Your task to perform on an android device: Open Yahoo.com Image 0: 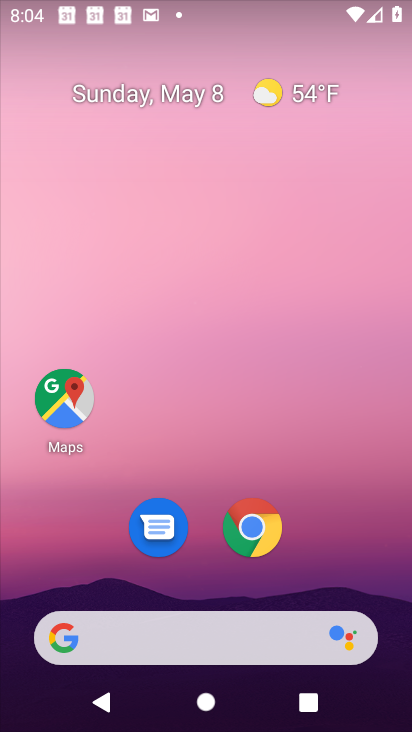
Step 0: click (255, 531)
Your task to perform on an android device: Open Yahoo.com Image 1: 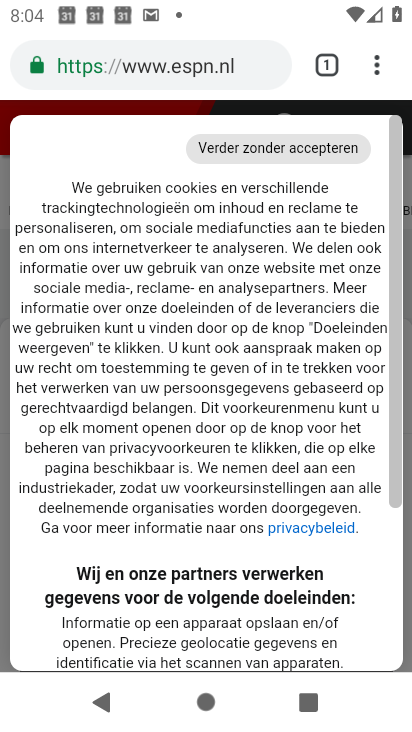
Step 1: click (200, 67)
Your task to perform on an android device: Open Yahoo.com Image 2: 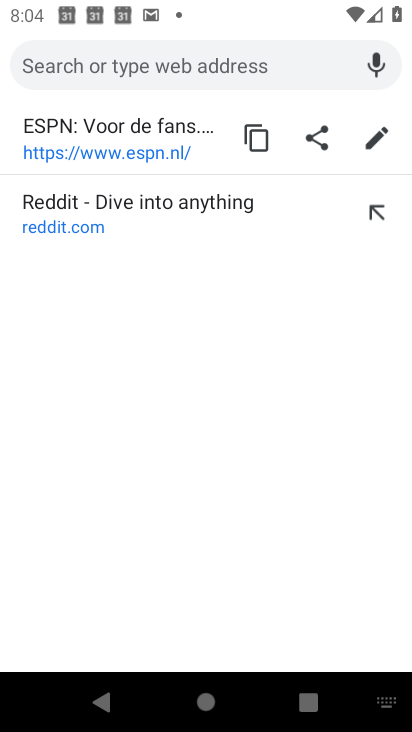
Step 2: type "yahoo.com"
Your task to perform on an android device: Open Yahoo.com Image 3: 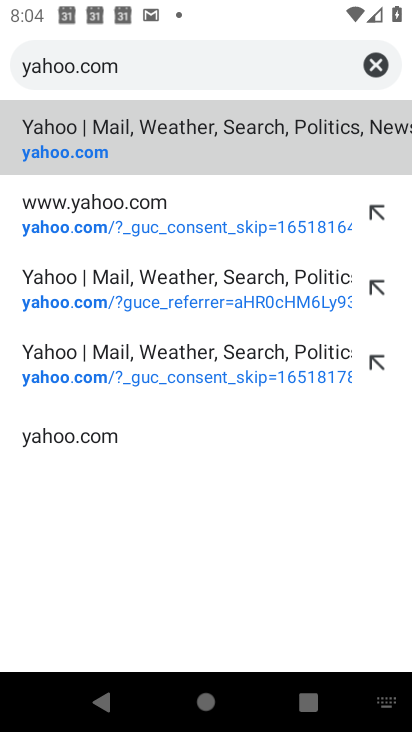
Step 3: click (194, 132)
Your task to perform on an android device: Open Yahoo.com Image 4: 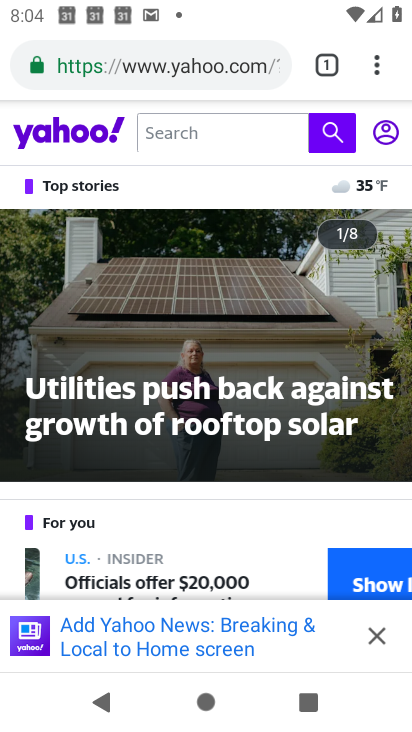
Step 4: task complete